Your task to perform on an android device: Go to Google Image 0: 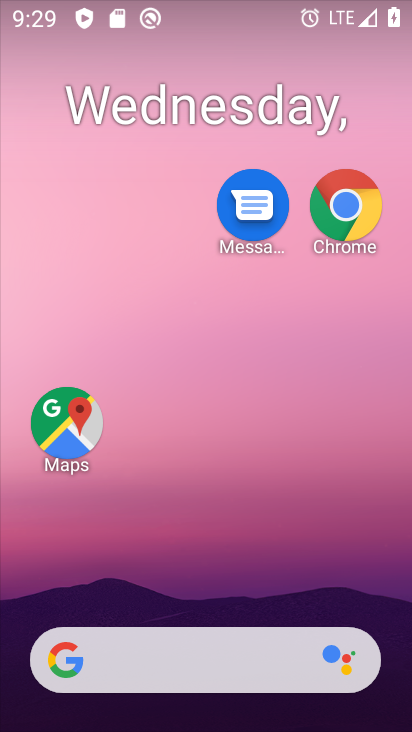
Step 0: drag from (186, 516) to (197, 43)
Your task to perform on an android device: Go to Google Image 1: 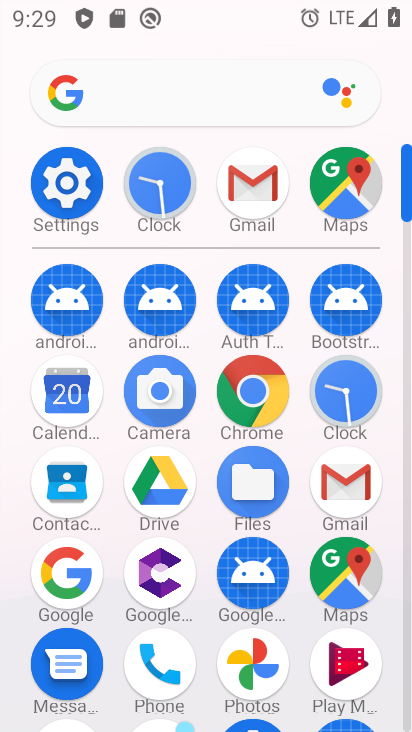
Step 1: click (80, 584)
Your task to perform on an android device: Go to Google Image 2: 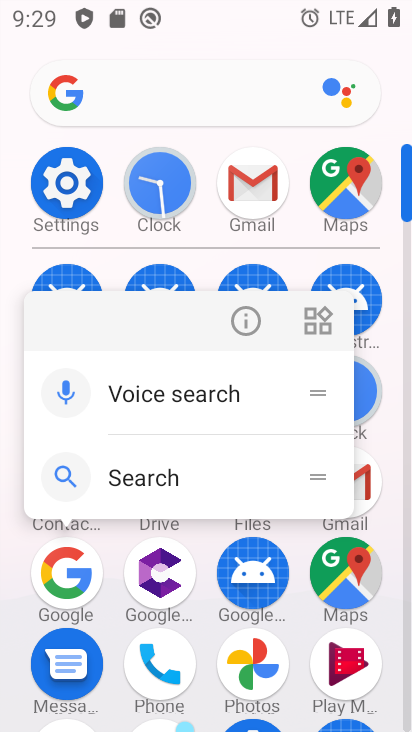
Step 2: click (253, 333)
Your task to perform on an android device: Go to Google Image 3: 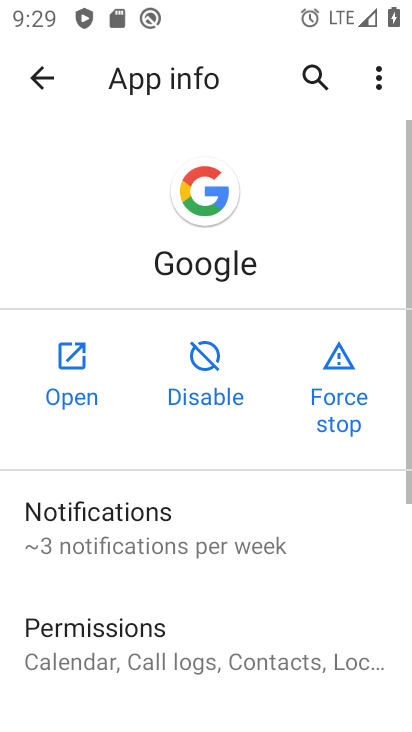
Step 3: click (85, 347)
Your task to perform on an android device: Go to Google Image 4: 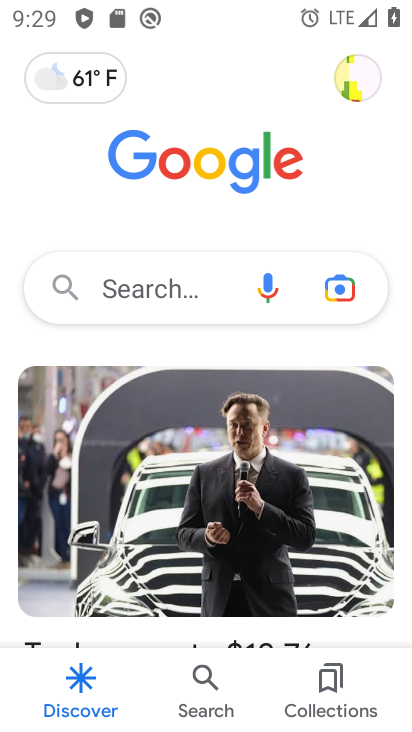
Step 4: task complete